Your task to perform on an android device: What's the news in Venezuela? Image 0: 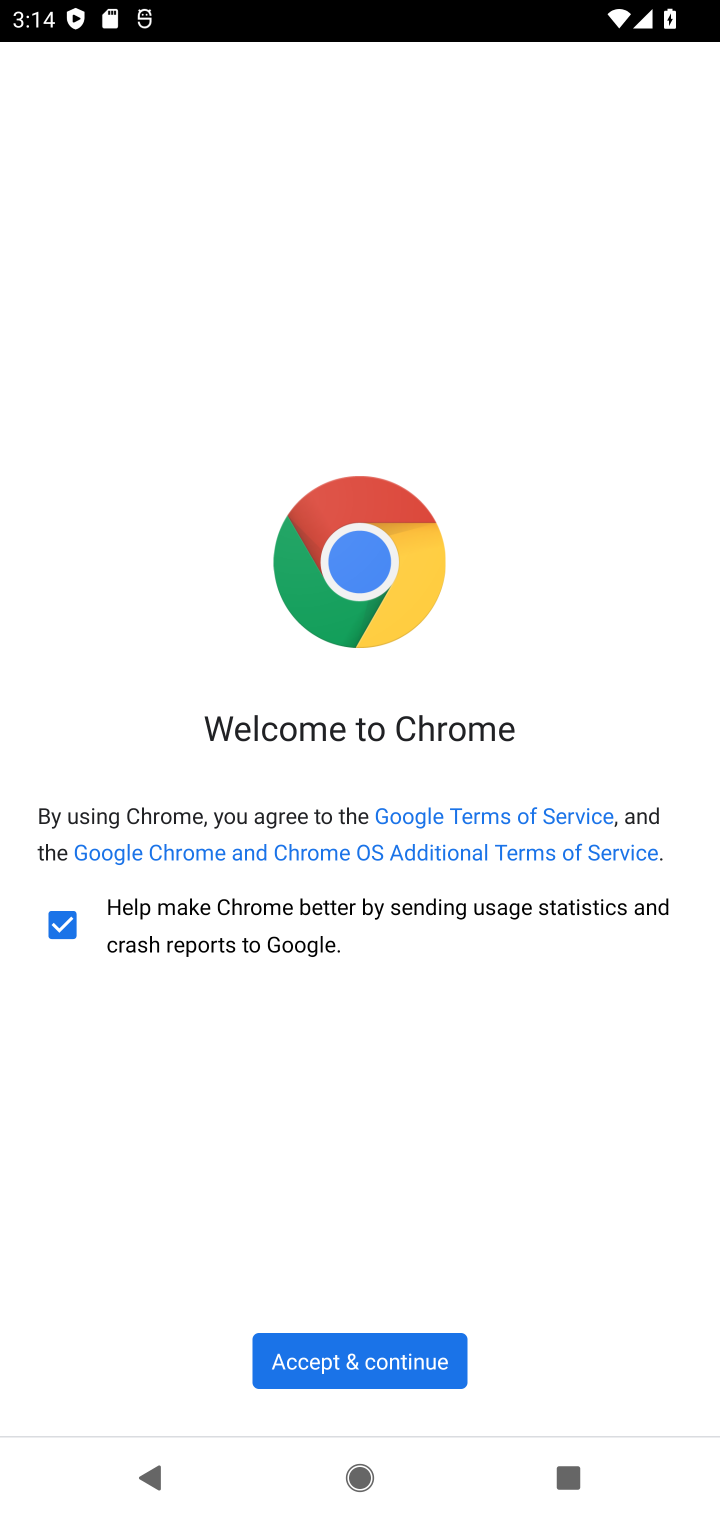
Step 0: press home button
Your task to perform on an android device: What's the news in Venezuela? Image 1: 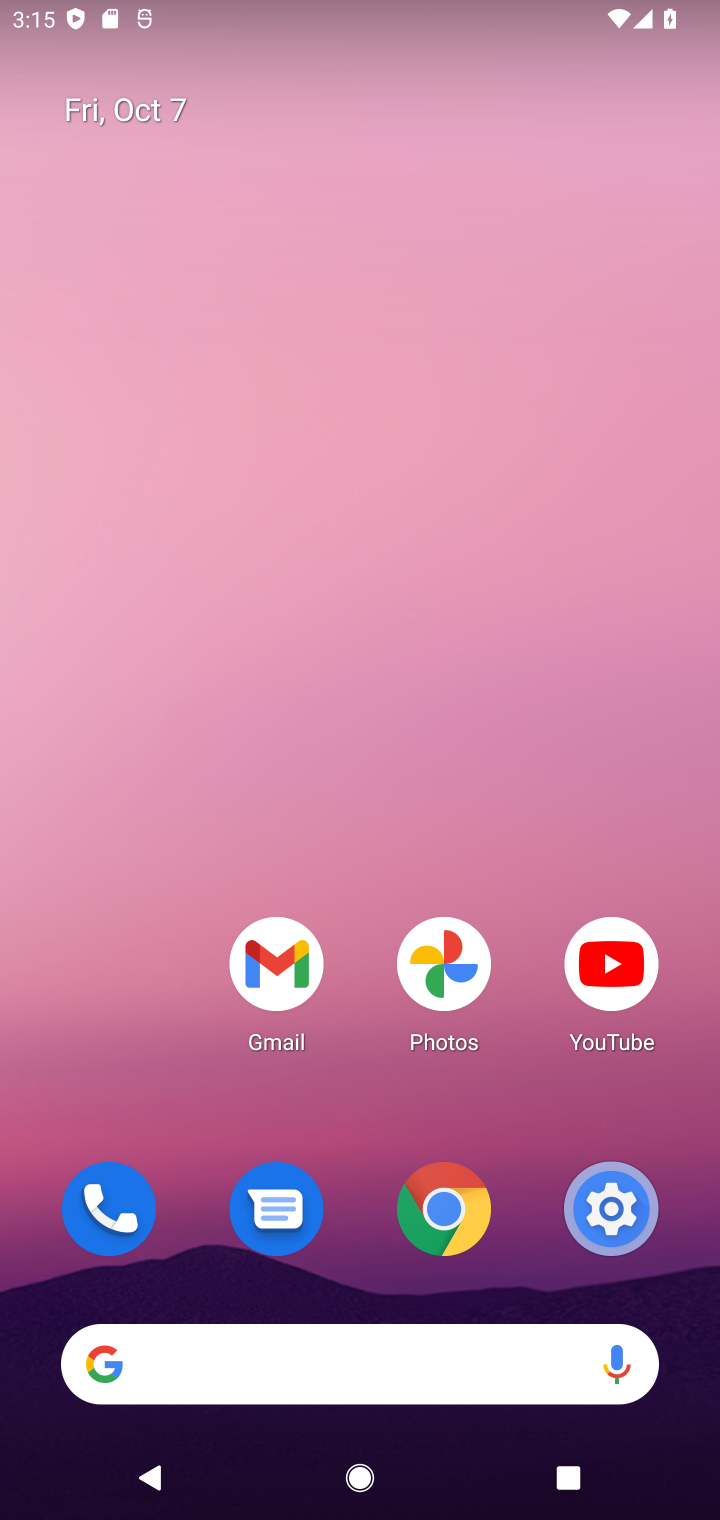
Step 1: click (432, 1376)
Your task to perform on an android device: What's the news in Venezuela? Image 2: 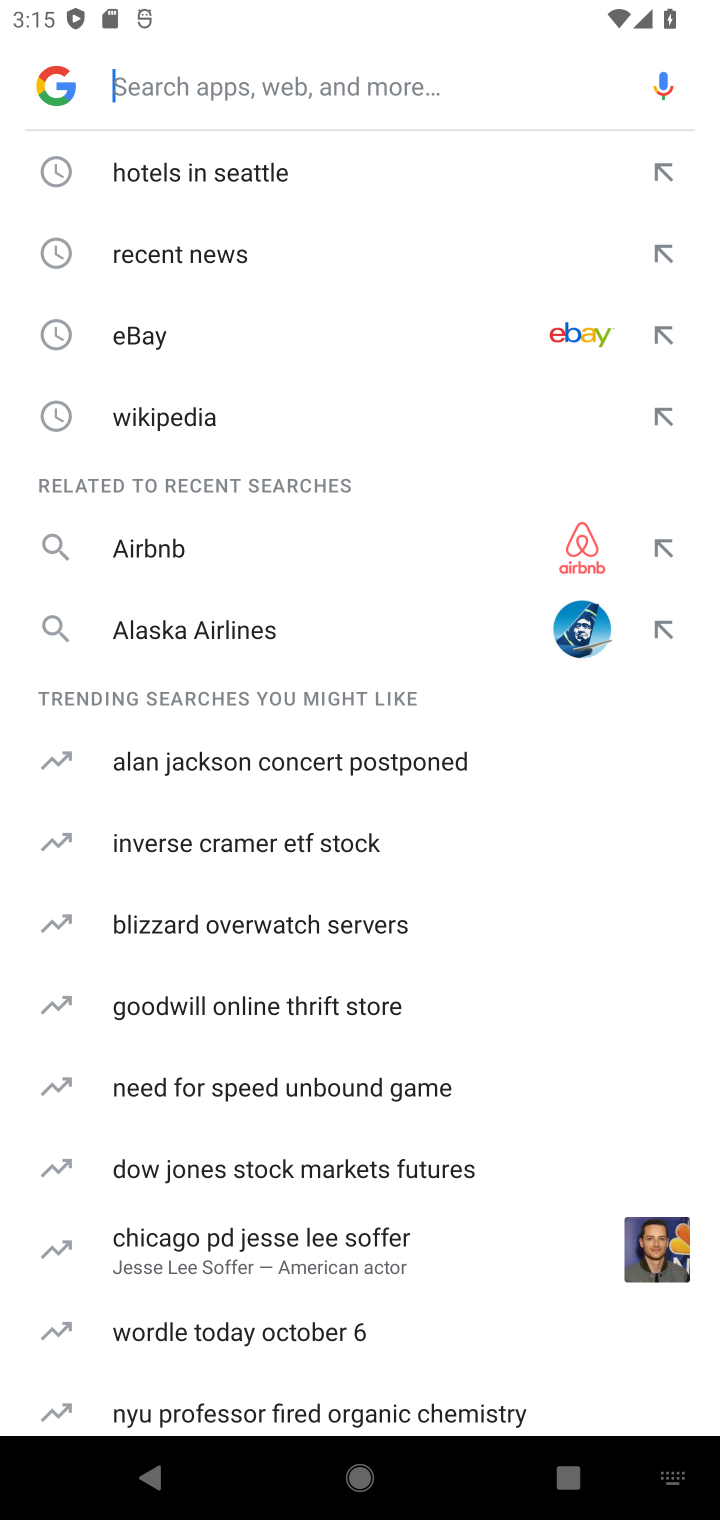
Step 2: type "What's the news in Venezuela?"
Your task to perform on an android device: What's the news in Venezuela? Image 3: 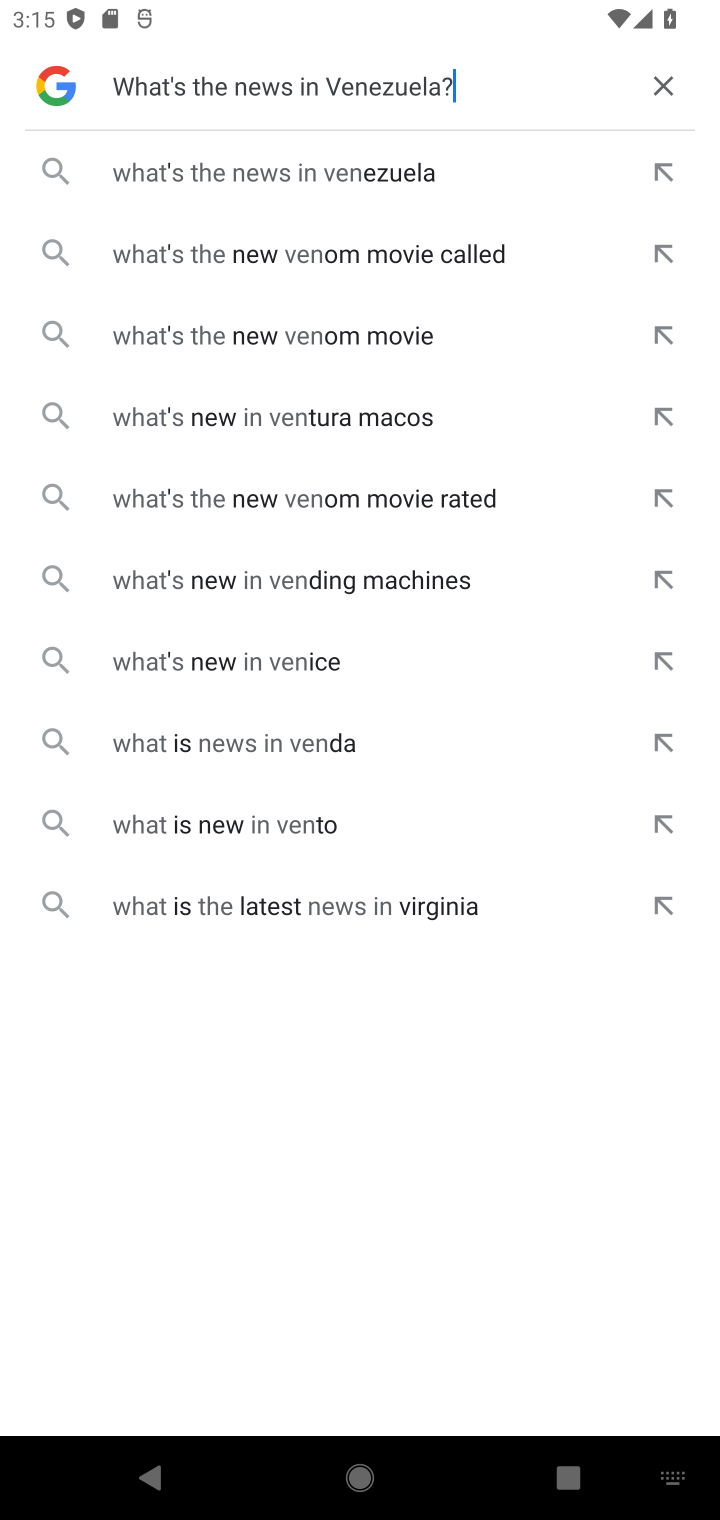
Step 3: press enter
Your task to perform on an android device: What's the news in Venezuela? Image 4: 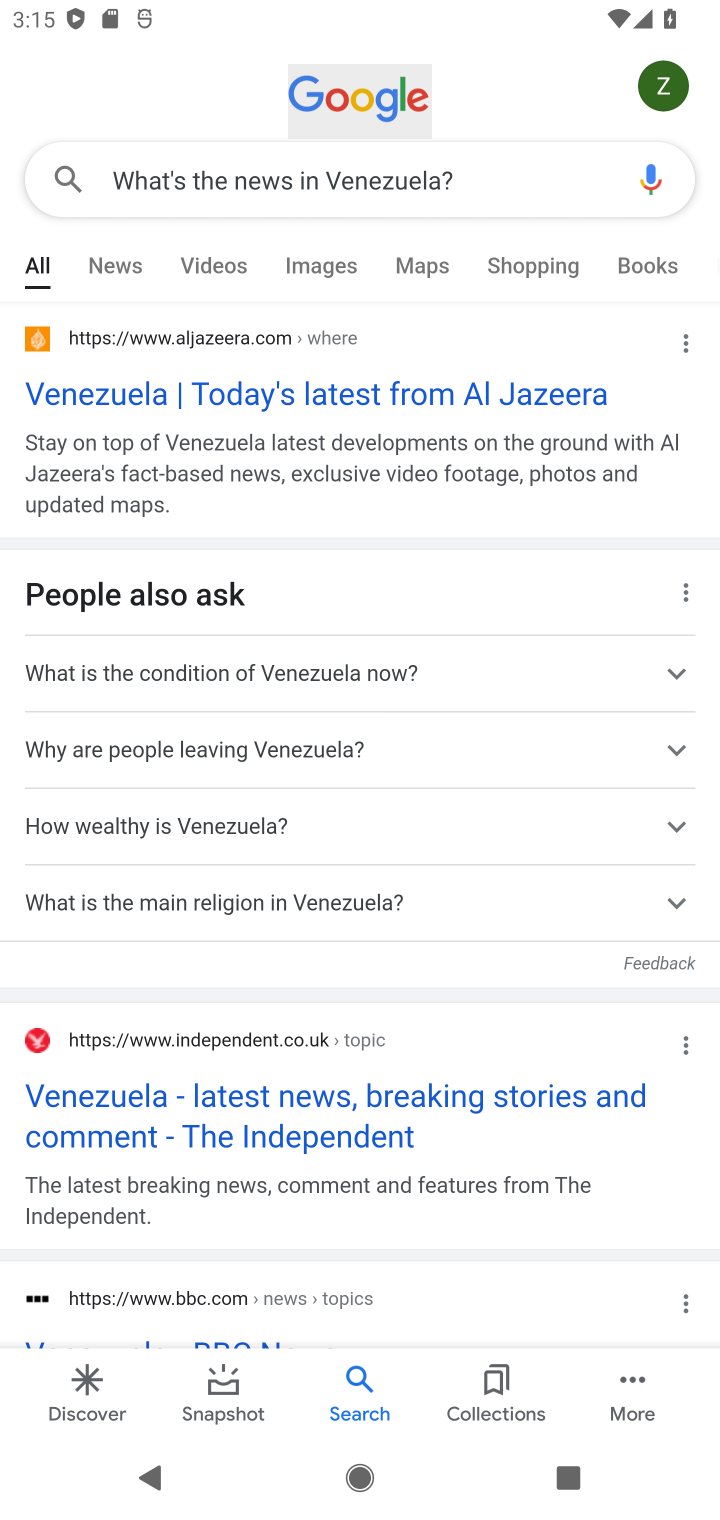
Step 4: click (370, 1124)
Your task to perform on an android device: What's the news in Venezuela? Image 5: 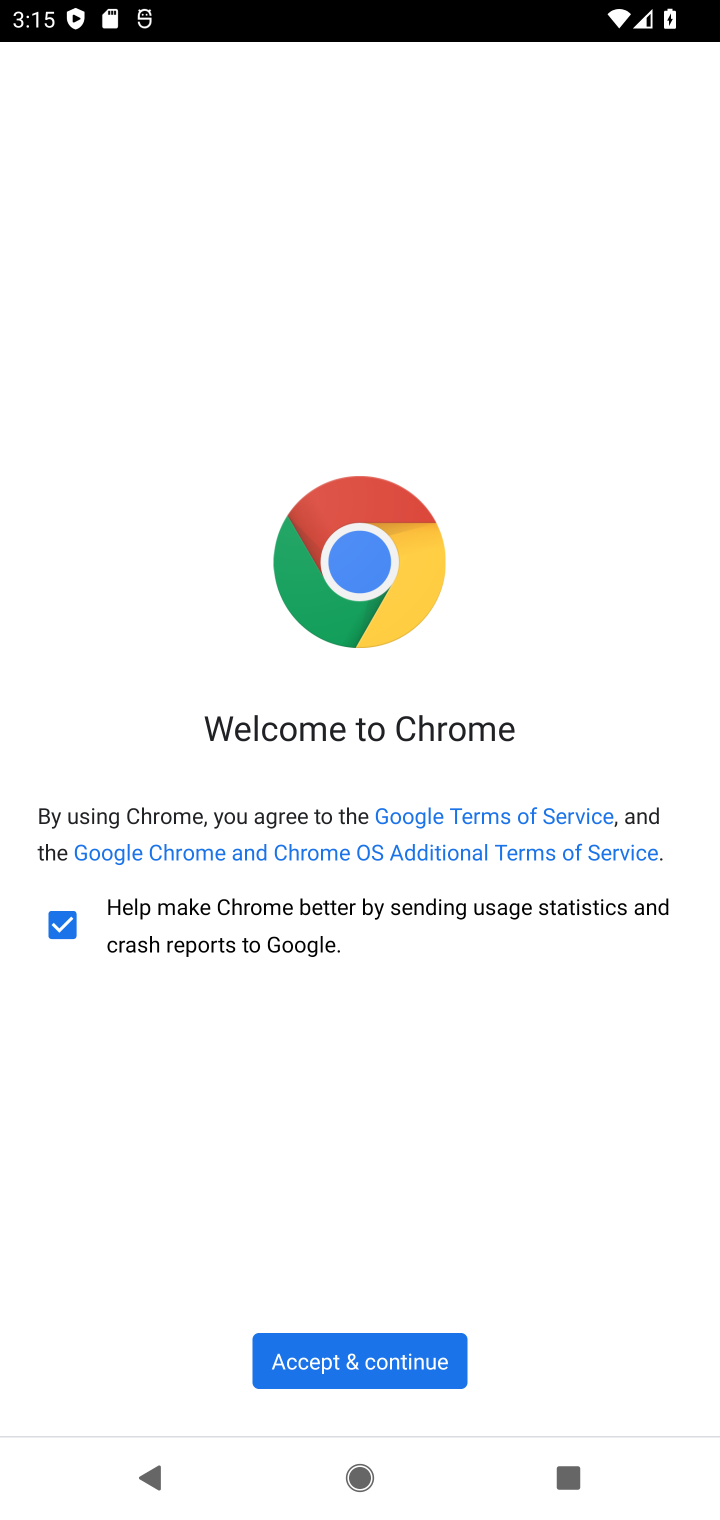
Step 5: click (352, 1369)
Your task to perform on an android device: What's the news in Venezuela? Image 6: 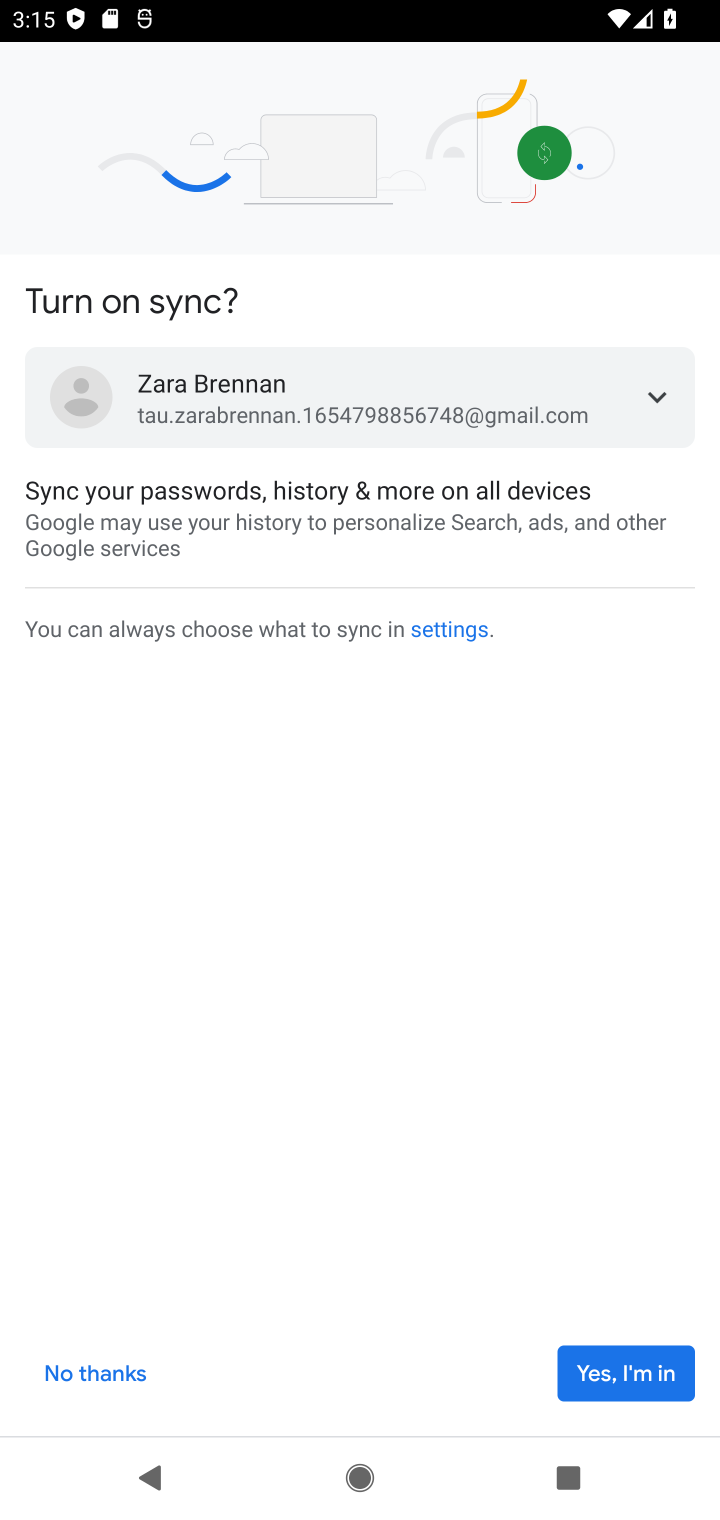
Step 6: click (628, 1365)
Your task to perform on an android device: What's the news in Venezuela? Image 7: 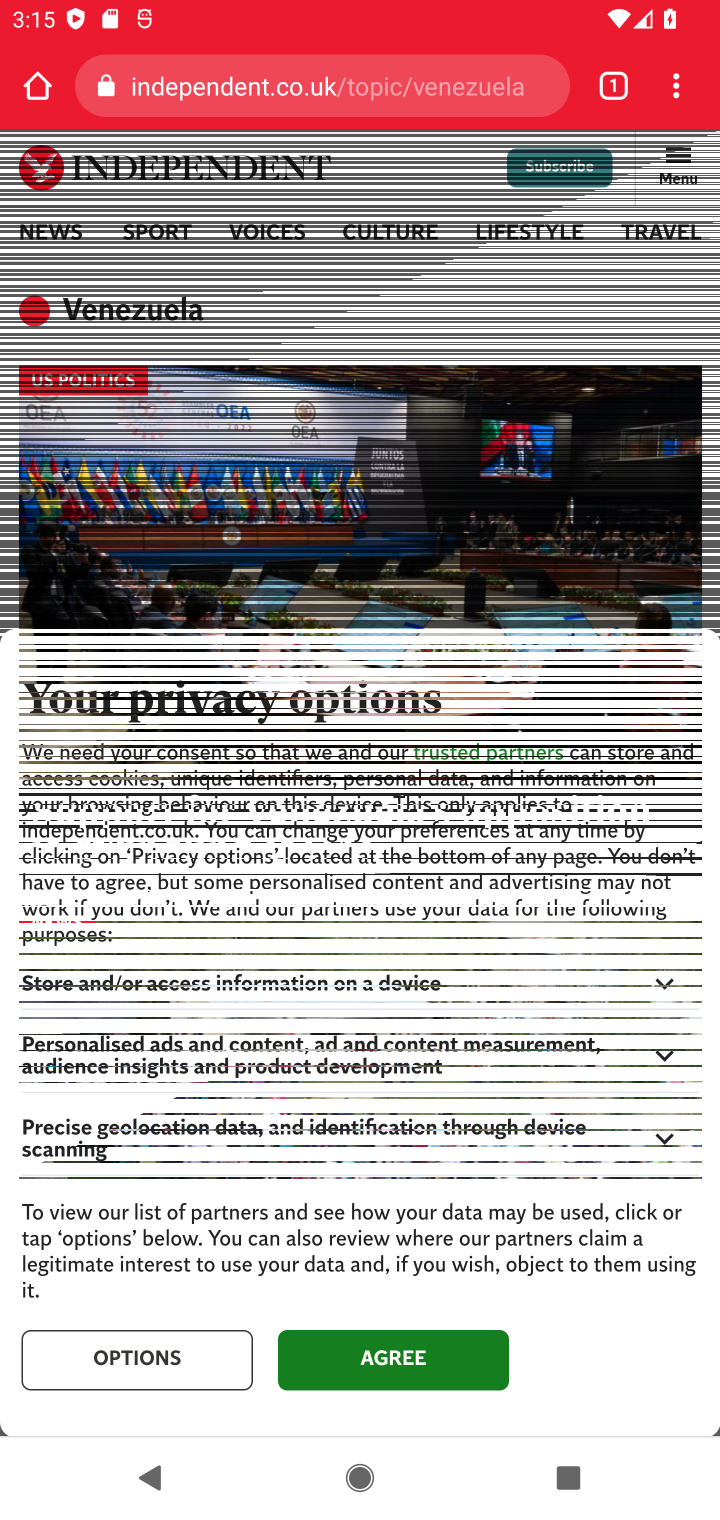
Step 7: click (492, 1367)
Your task to perform on an android device: What's the news in Venezuela? Image 8: 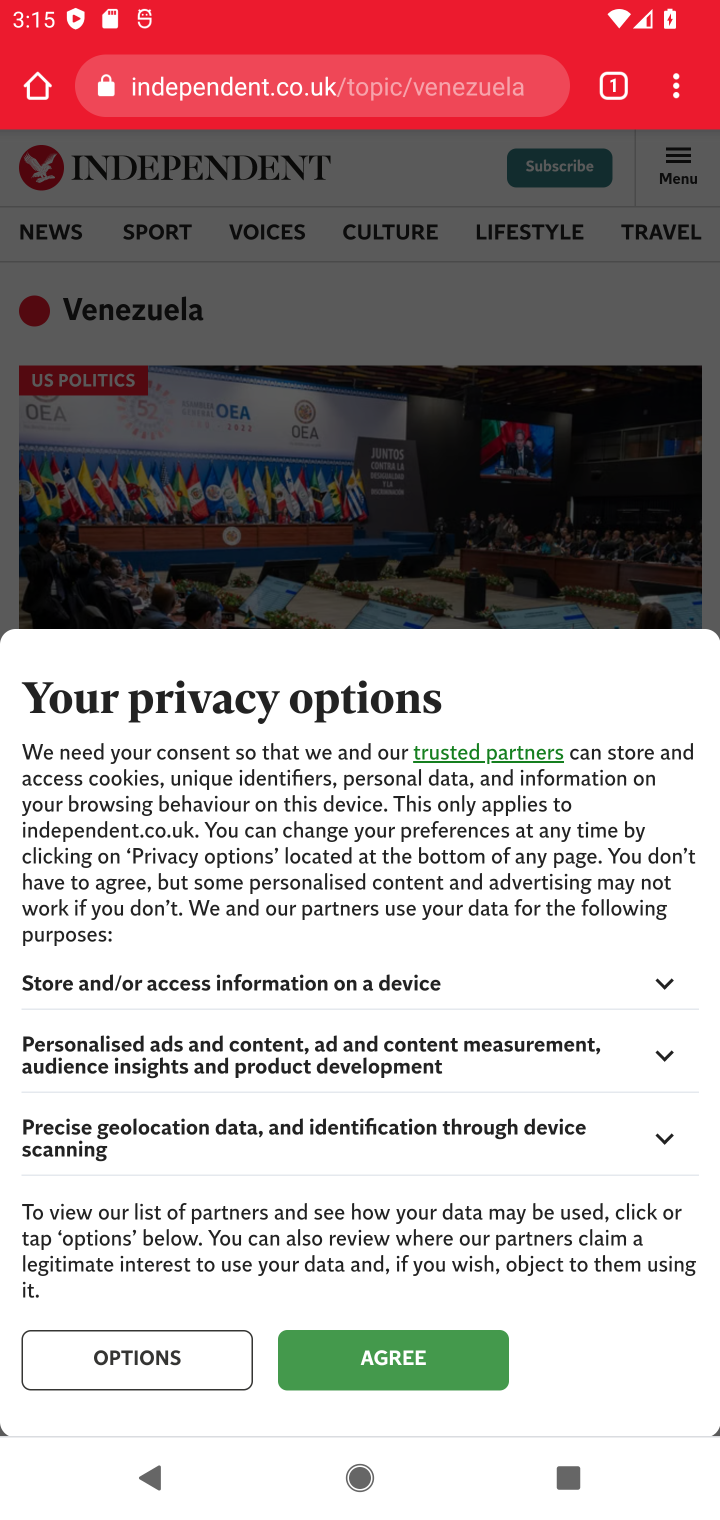
Step 8: click (419, 1365)
Your task to perform on an android device: What's the news in Venezuela? Image 9: 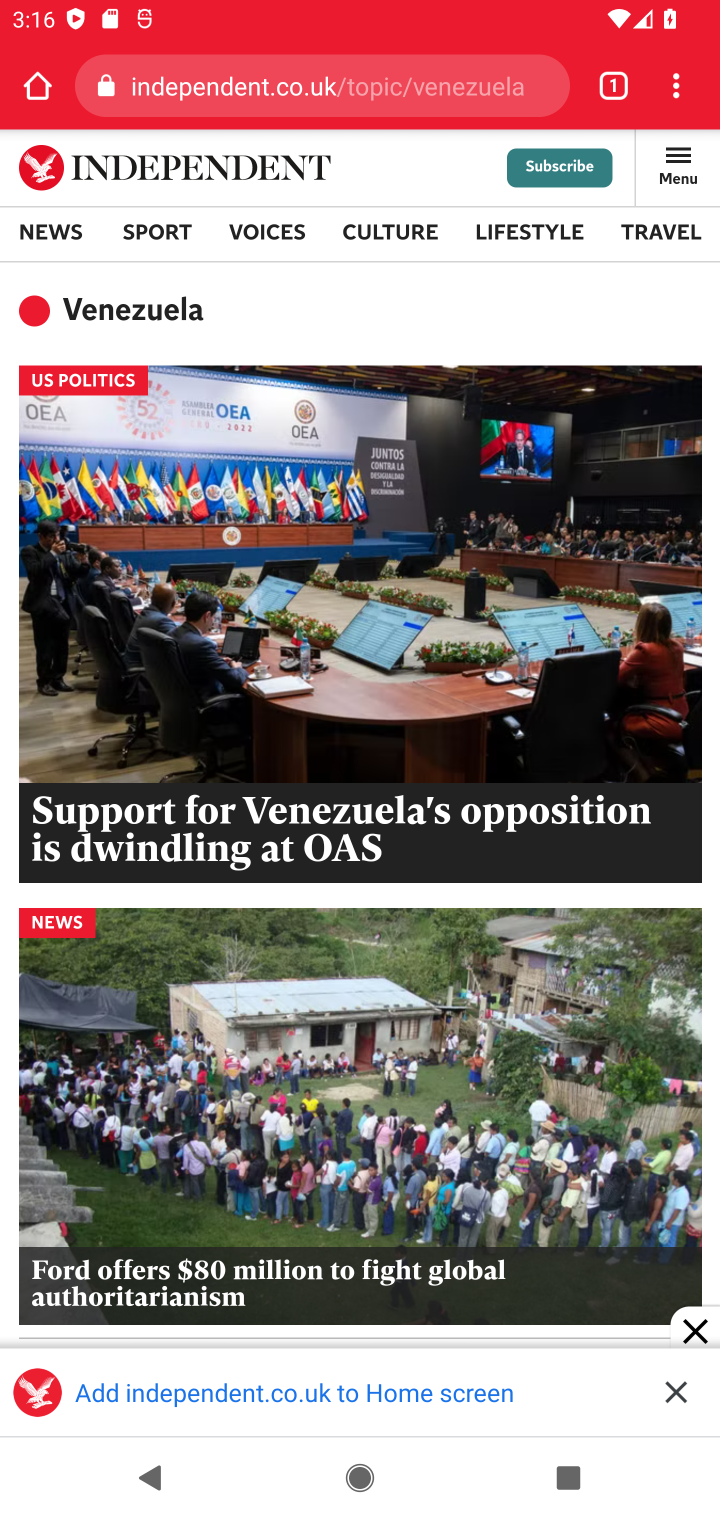
Step 9: task complete